Your task to perform on an android device: see tabs open on other devices in the chrome app Image 0: 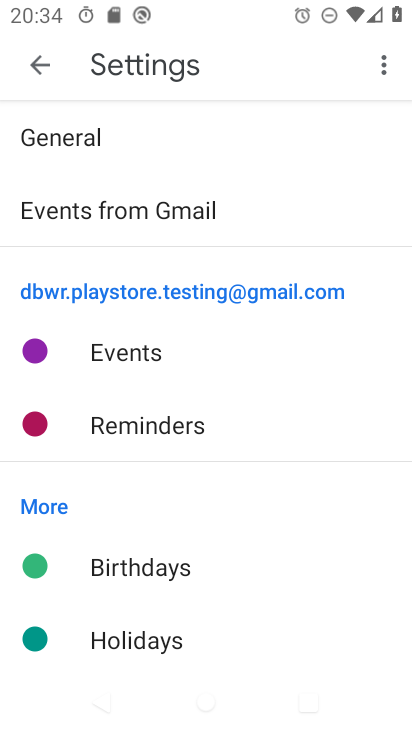
Step 0: press home button
Your task to perform on an android device: see tabs open on other devices in the chrome app Image 1: 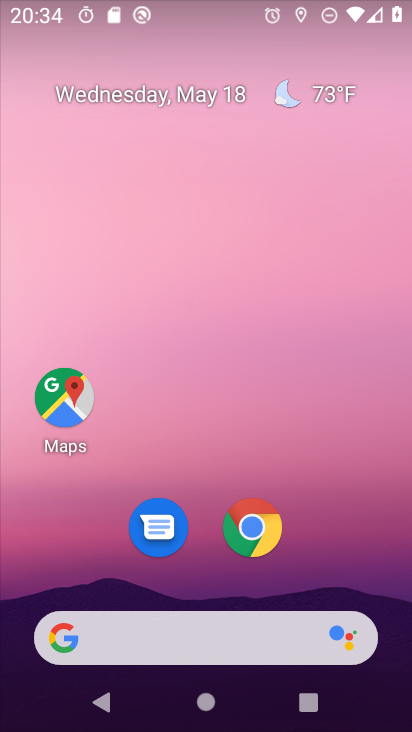
Step 1: click (401, 697)
Your task to perform on an android device: see tabs open on other devices in the chrome app Image 2: 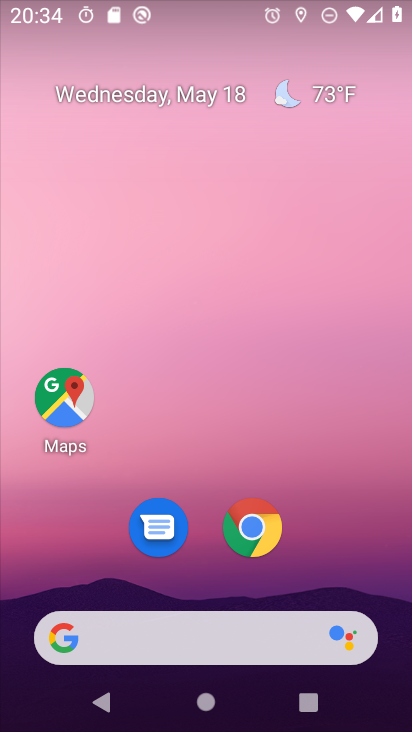
Step 2: drag from (394, 684) to (358, 331)
Your task to perform on an android device: see tabs open on other devices in the chrome app Image 3: 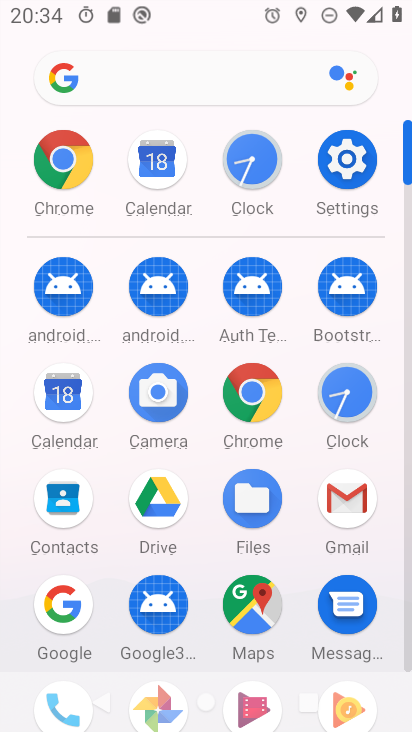
Step 3: click (63, 162)
Your task to perform on an android device: see tabs open on other devices in the chrome app Image 4: 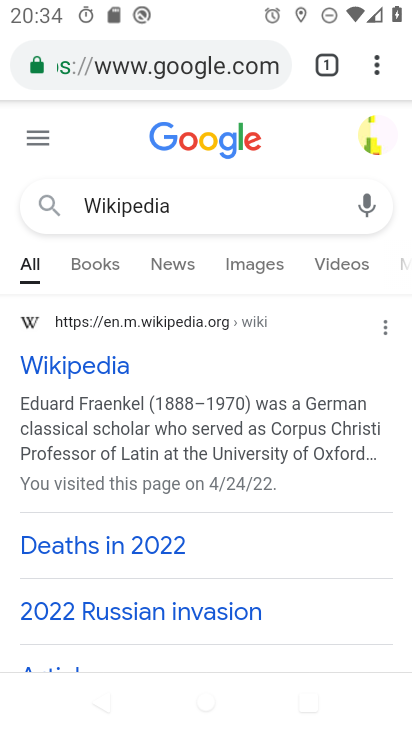
Step 4: click (374, 61)
Your task to perform on an android device: see tabs open on other devices in the chrome app Image 5: 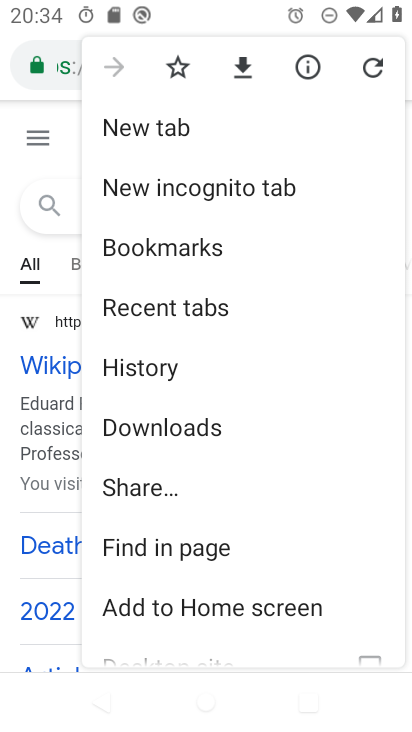
Step 5: click (144, 311)
Your task to perform on an android device: see tabs open on other devices in the chrome app Image 6: 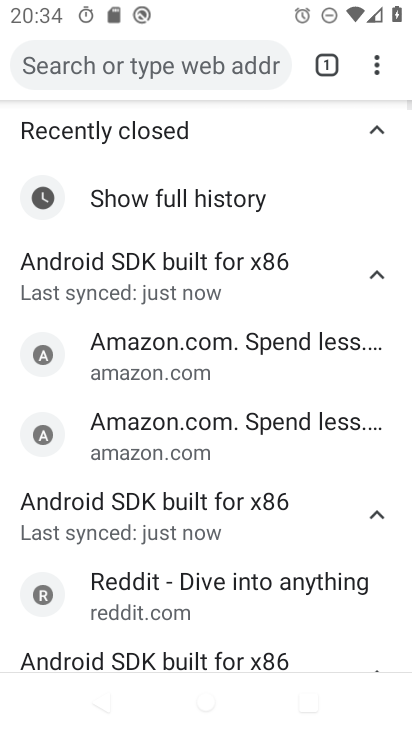
Step 6: task complete